Your task to perform on an android device: open device folders in google photos Image 0: 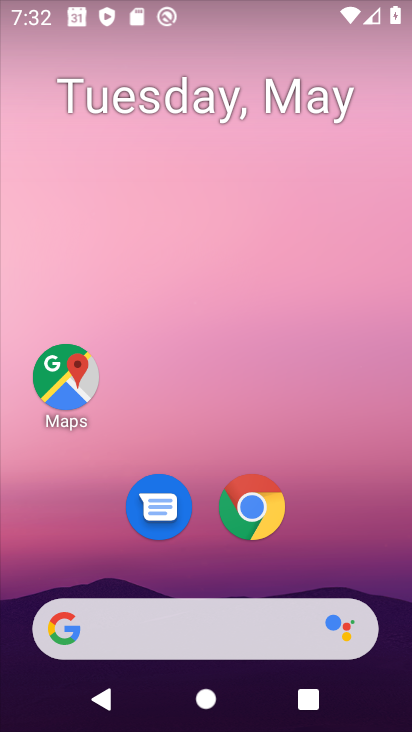
Step 0: drag from (291, 570) to (311, 3)
Your task to perform on an android device: open device folders in google photos Image 1: 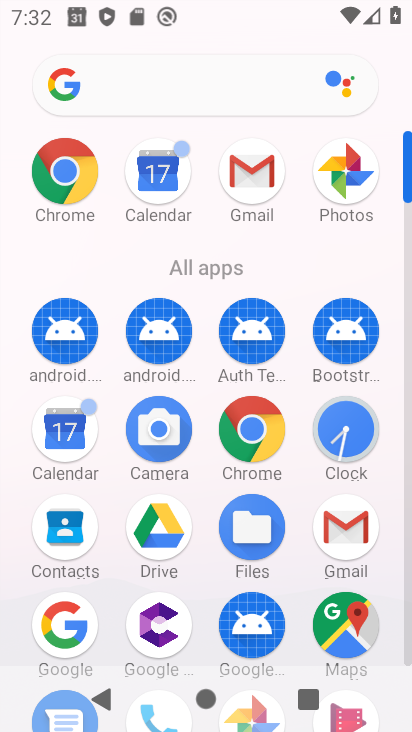
Step 1: drag from (302, 593) to (334, 373)
Your task to perform on an android device: open device folders in google photos Image 2: 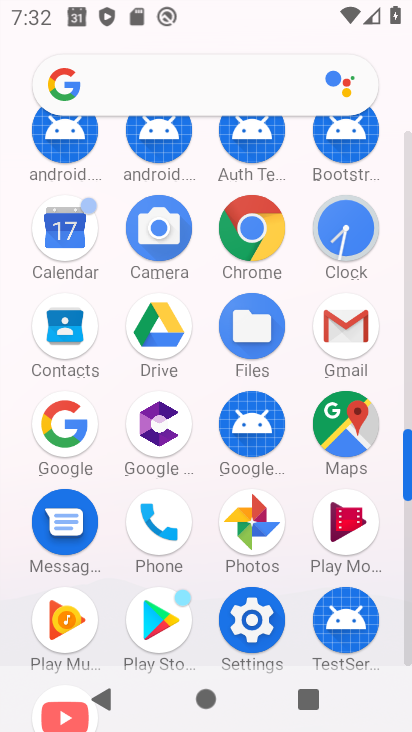
Step 2: click (256, 518)
Your task to perform on an android device: open device folders in google photos Image 3: 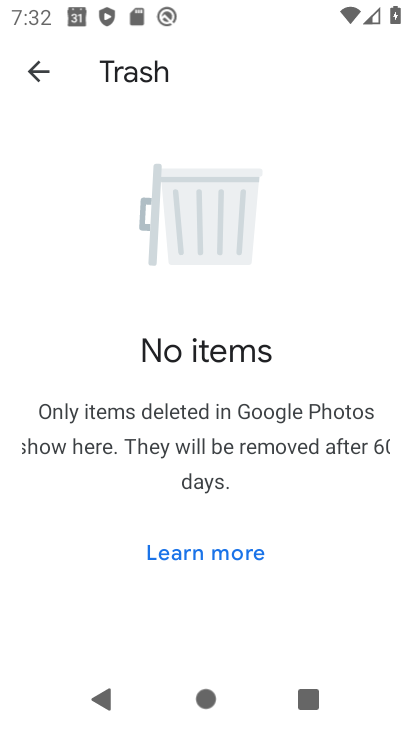
Step 3: click (28, 68)
Your task to perform on an android device: open device folders in google photos Image 4: 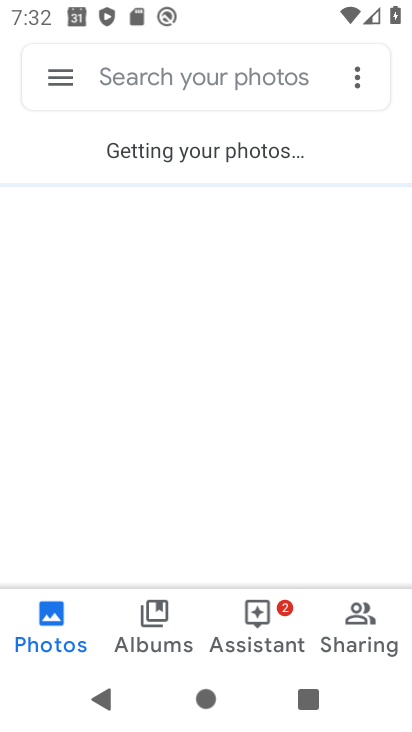
Step 4: click (67, 86)
Your task to perform on an android device: open device folders in google photos Image 5: 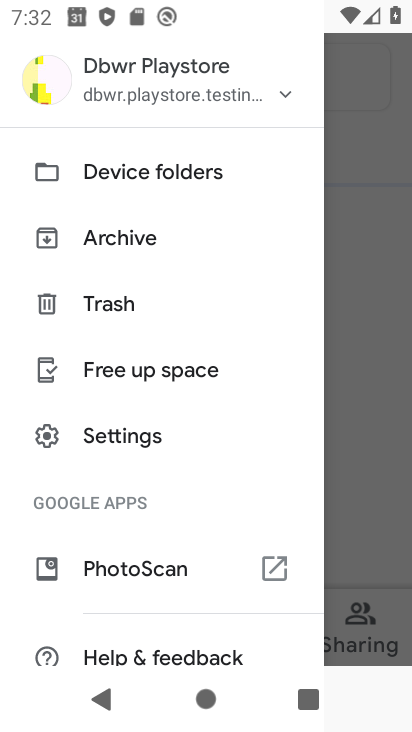
Step 5: click (115, 178)
Your task to perform on an android device: open device folders in google photos Image 6: 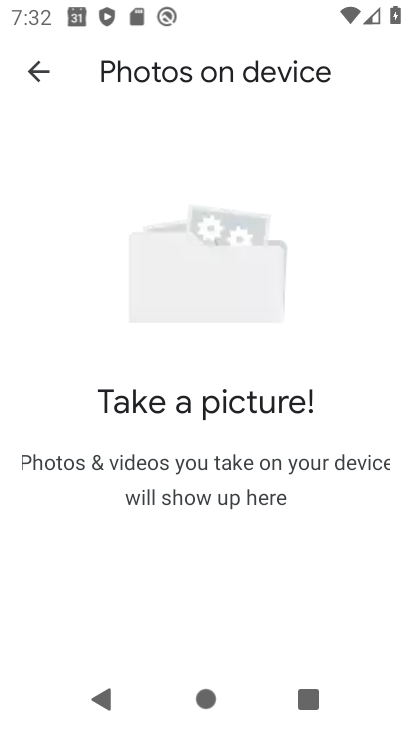
Step 6: task complete